Your task to perform on an android device: toggle data saver in the chrome app Image 0: 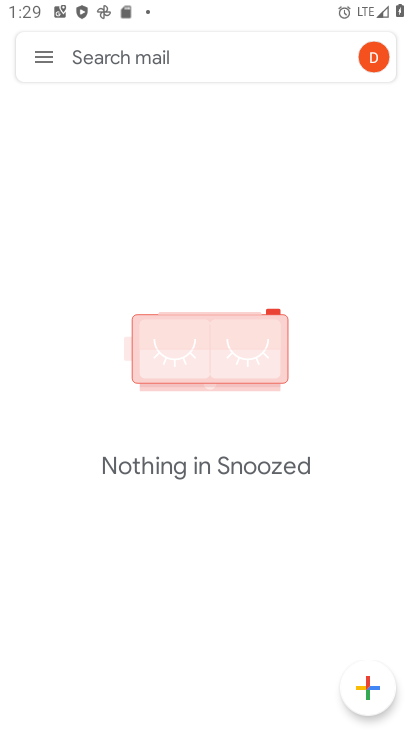
Step 0: press home button
Your task to perform on an android device: toggle data saver in the chrome app Image 1: 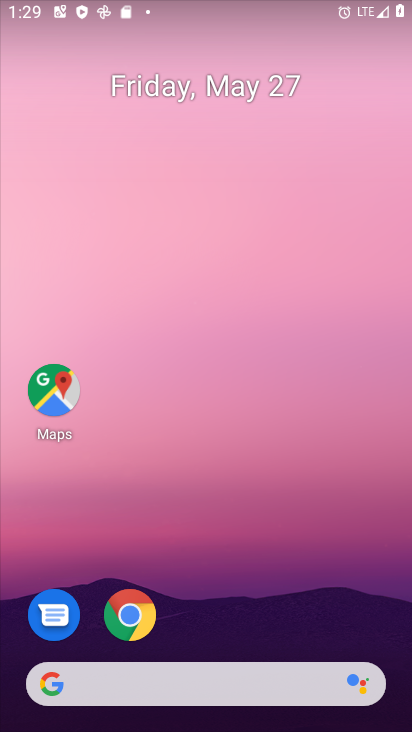
Step 1: drag from (131, 712) to (299, 11)
Your task to perform on an android device: toggle data saver in the chrome app Image 2: 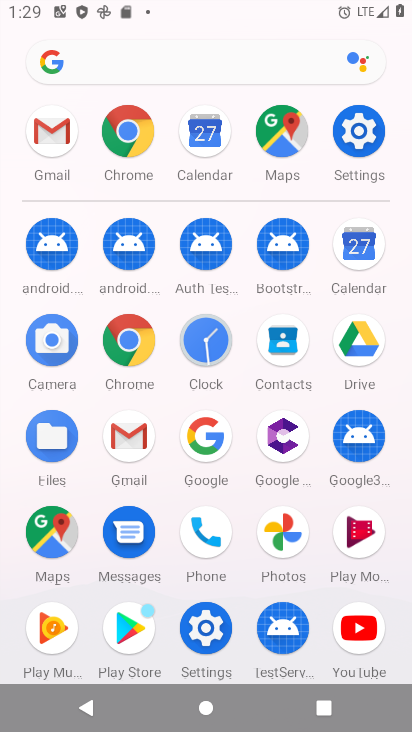
Step 2: click (109, 346)
Your task to perform on an android device: toggle data saver in the chrome app Image 3: 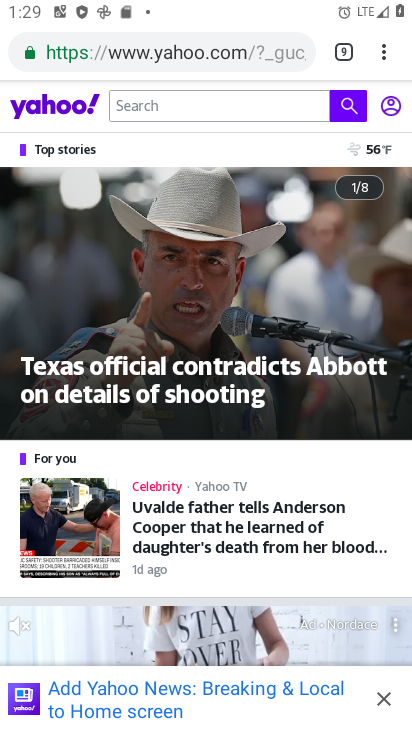
Step 3: drag from (387, 48) to (234, 628)
Your task to perform on an android device: toggle data saver in the chrome app Image 4: 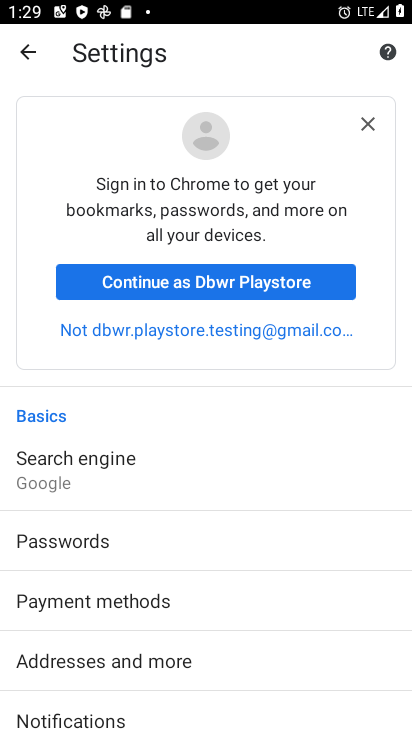
Step 4: drag from (161, 645) to (203, 101)
Your task to perform on an android device: toggle data saver in the chrome app Image 5: 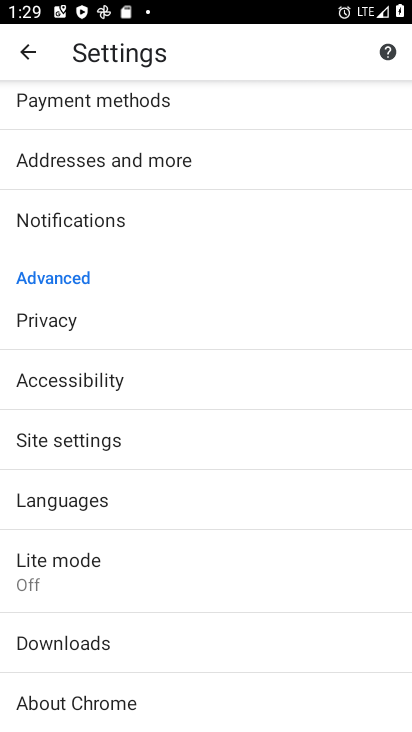
Step 5: click (106, 584)
Your task to perform on an android device: toggle data saver in the chrome app Image 6: 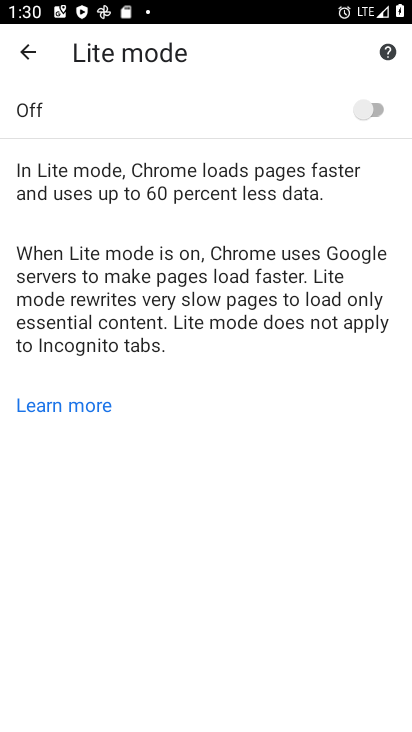
Step 6: task complete